Your task to perform on an android device: Search for sushi restaurants on Maps Image 0: 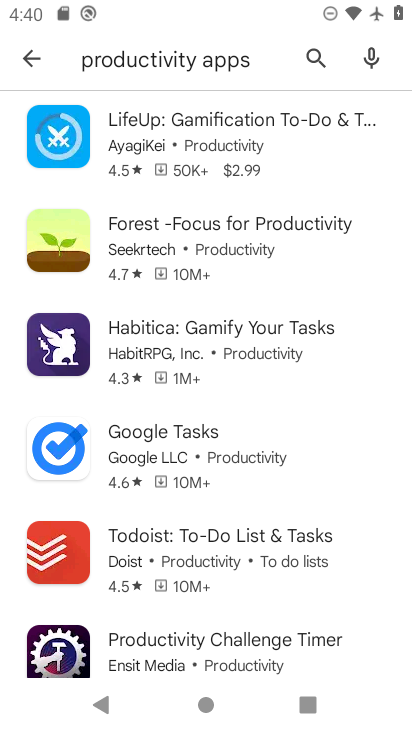
Step 0: press home button
Your task to perform on an android device: Search for sushi restaurants on Maps Image 1: 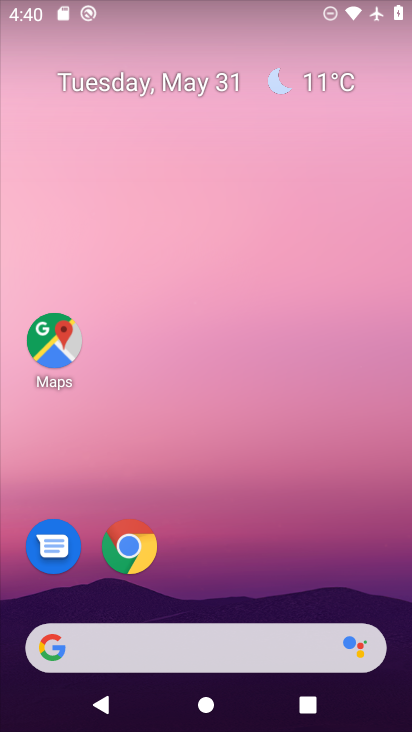
Step 1: click (56, 346)
Your task to perform on an android device: Search for sushi restaurants on Maps Image 2: 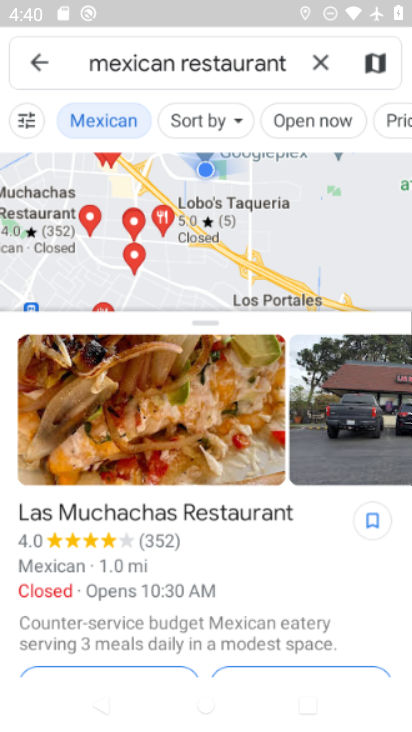
Step 2: click (325, 61)
Your task to perform on an android device: Search for sushi restaurants on Maps Image 3: 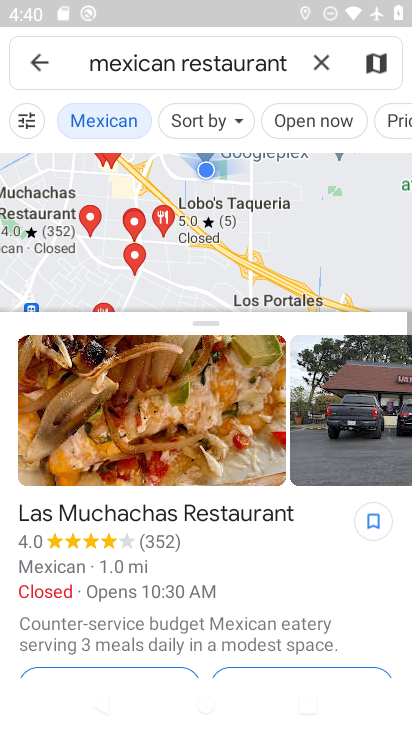
Step 3: click (204, 62)
Your task to perform on an android device: Search for sushi restaurants on Maps Image 4: 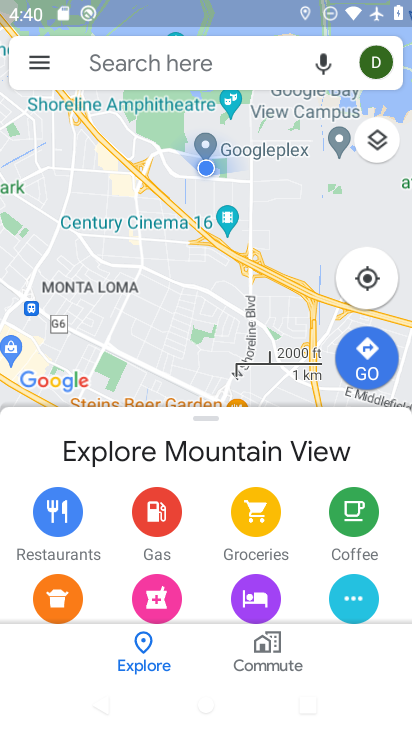
Step 4: click (164, 61)
Your task to perform on an android device: Search for sushi restaurants on Maps Image 5: 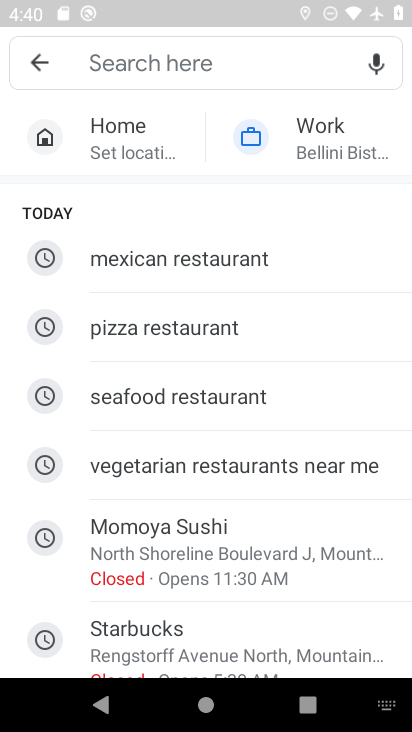
Step 5: drag from (205, 521) to (169, 154)
Your task to perform on an android device: Search for sushi restaurants on Maps Image 6: 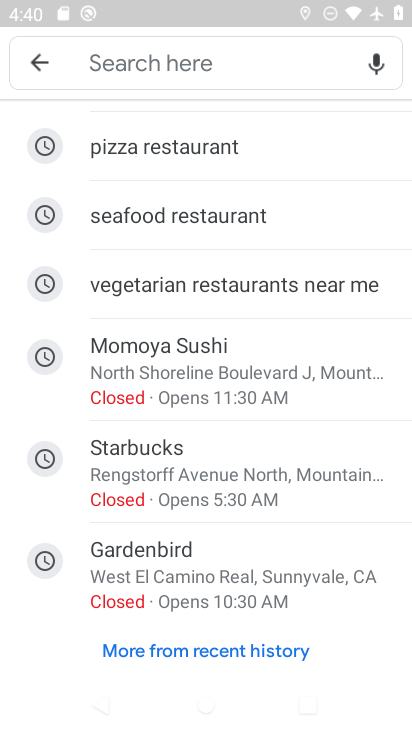
Step 6: click (199, 82)
Your task to perform on an android device: Search for sushi restaurants on Maps Image 7: 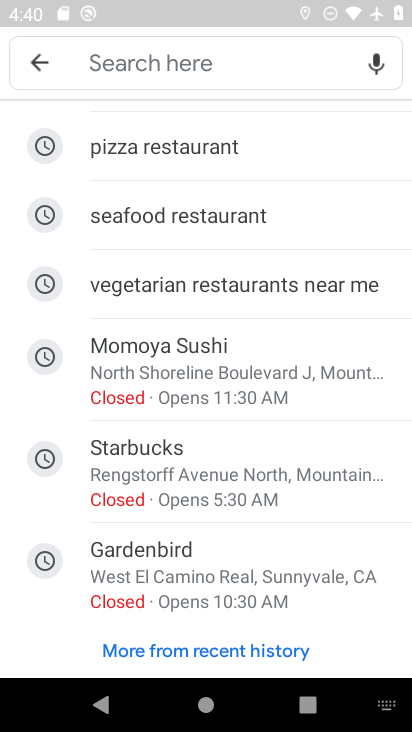
Step 7: type "sushi restaurants"
Your task to perform on an android device: Search for sushi restaurants on Maps Image 8: 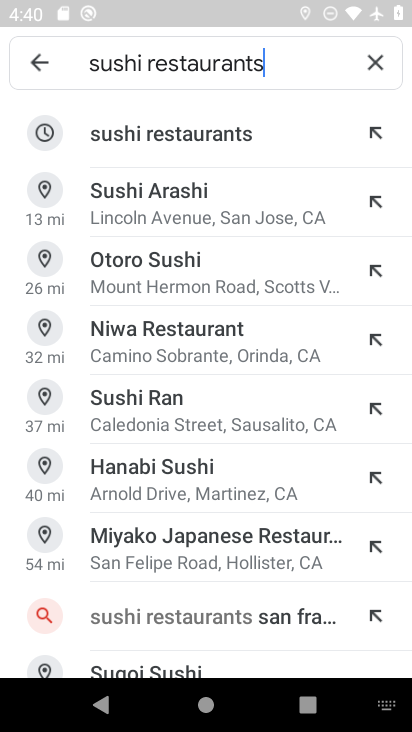
Step 8: click (181, 123)
Your task to perform on an android device: Search for sushi restaurants on Maps Image 9: 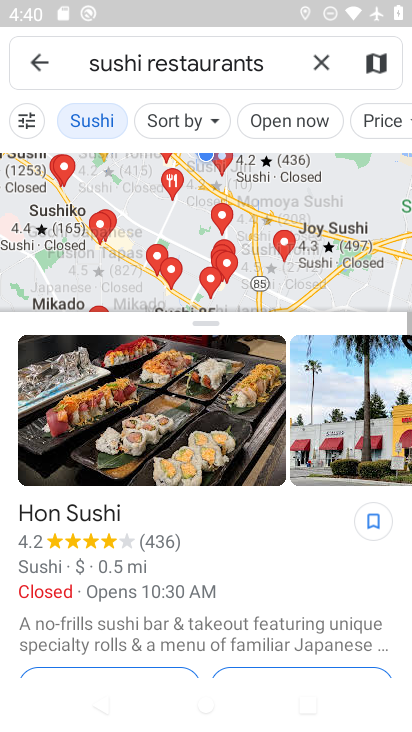
Step 9: task complete